Your task to perform on an android device: Go to Google maps Image 0: 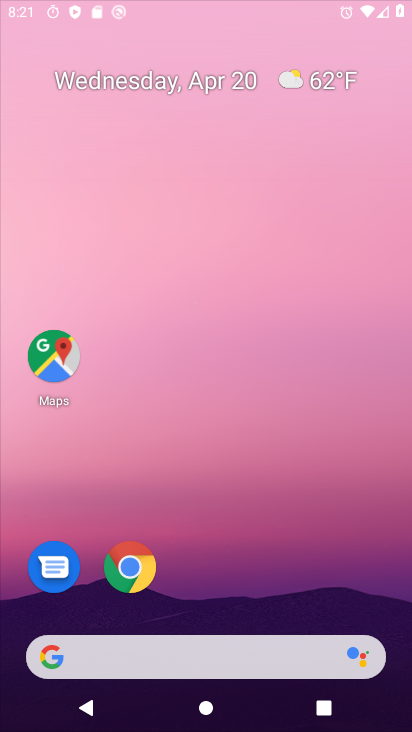
Step 0: drag from (364, 501) to (364, 10)
Your task to perform on an android device: Go to Google maps Image 1: 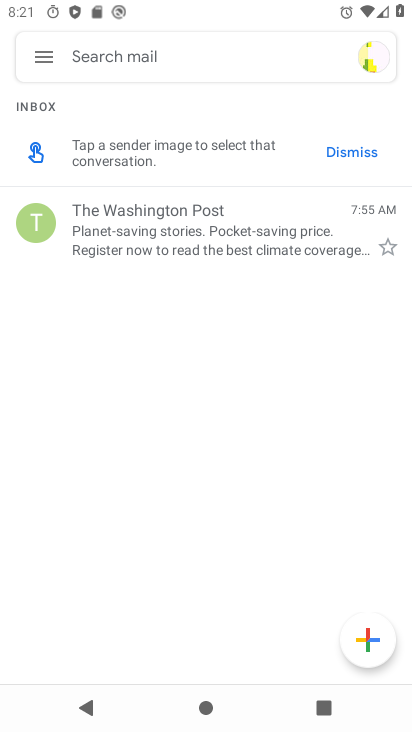
Step 1: press home button
Your task to perform on an android device: Go to Google maps Image 2: 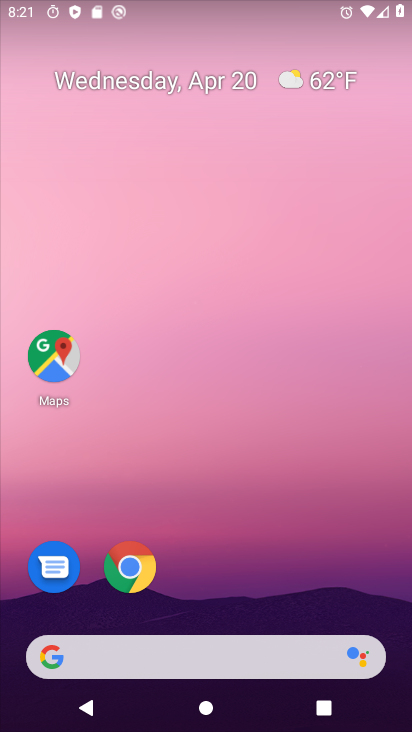
Step 2: click (49, 365)
Your task to perform on an android device: Go to Google maps Image 3: 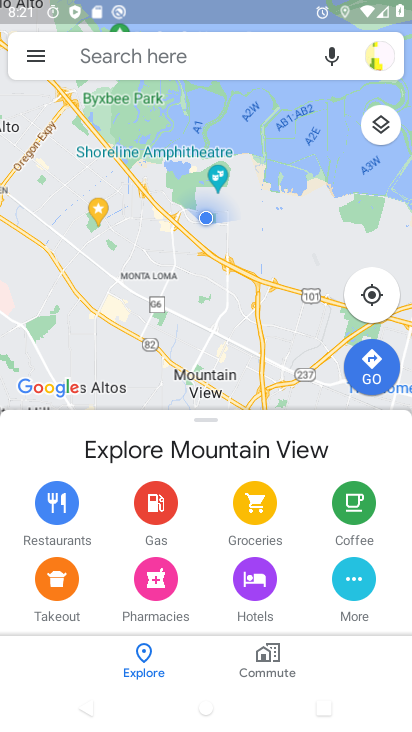
Step 3: task complete